Your task to perform on an android device: turn off sleep mode Image 0: 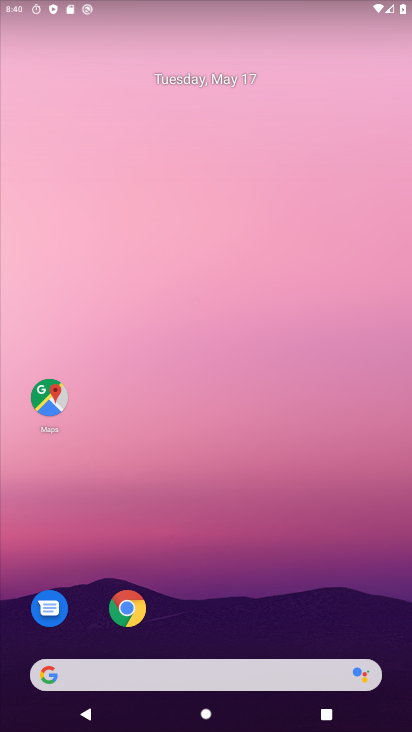
Step 0: drag from (281, 583) to (325, 93)
Your task to perform on an android device: turn off sleep mode Image 1: 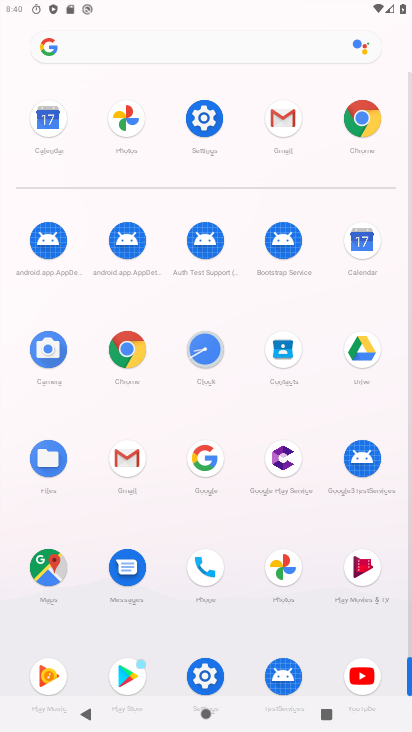
Step 1: click (202, 669)
Your task to perform on an android device: turn off sleep mode Image 2: 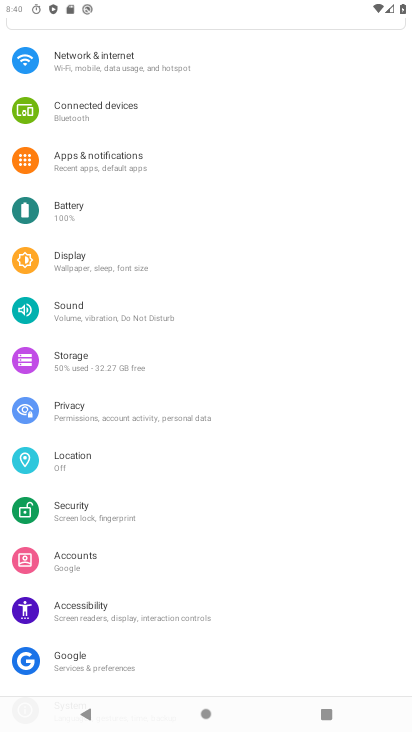
Step 2: drag from (193, 102) to (217, 502)
Your task to perform on an android device: turn off sleep mode Image 3: 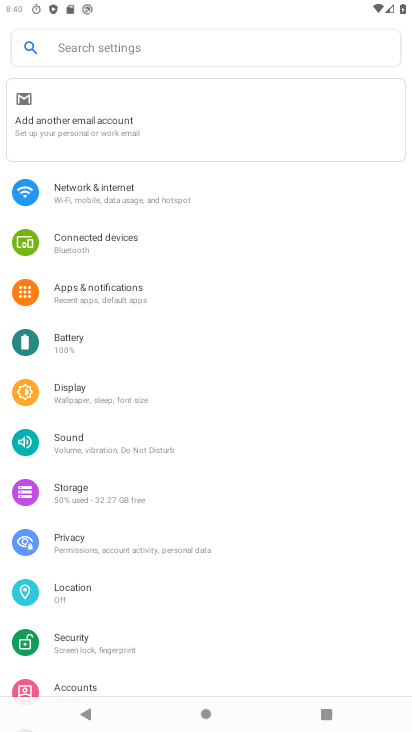
Step 3: click (185, 47)
Your task to perform on an android device: turn off sleep mode Image 4: 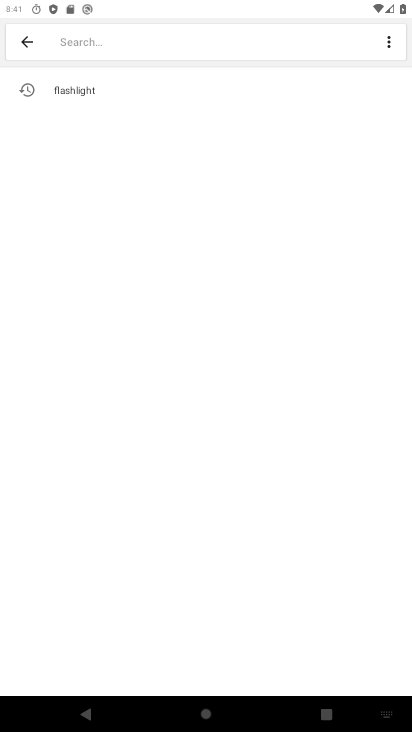
Step 4: type "sleep mode"
Your task to perform on an android device: turn off sleep mode Image 5: 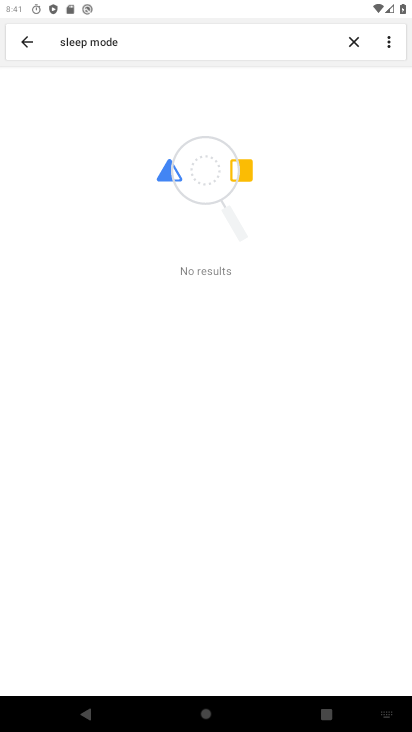
Step 5: task complete